Your task to perform on an android device: open a bookmark in the chrome app Image 0: 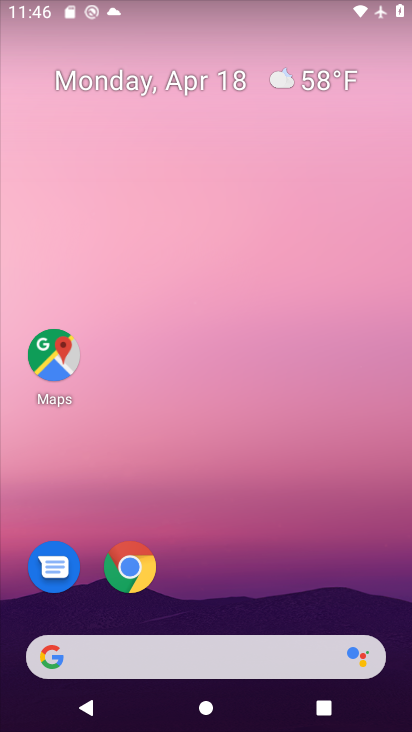
Step 0: click (122, 574)
Your task to perform on an android device: open a bookmark in the chrome app Image 1: 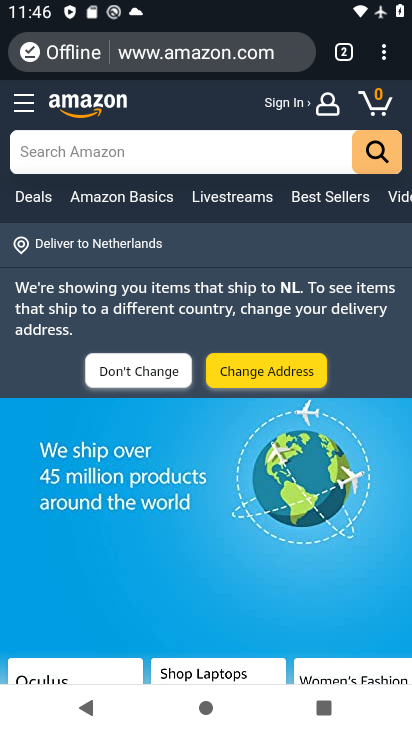
Step 1: click (382, 52)
Your task to perform on an android device: open a bookmark in the chrome app Image 2: 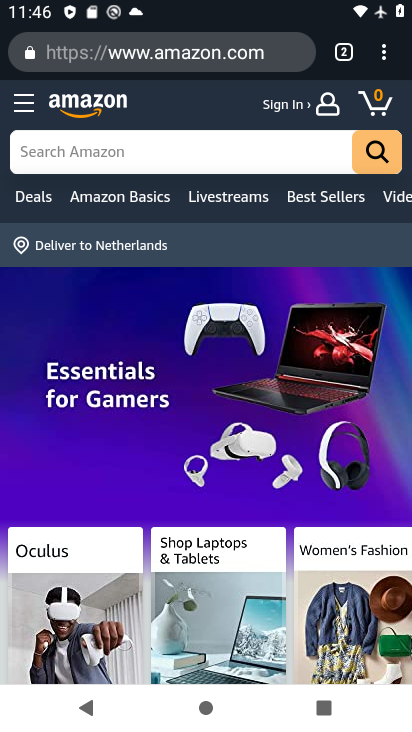
Step 2: click (380, 52)
Your task to perform on an android device: open a bookmark in the chrome app Image 3: 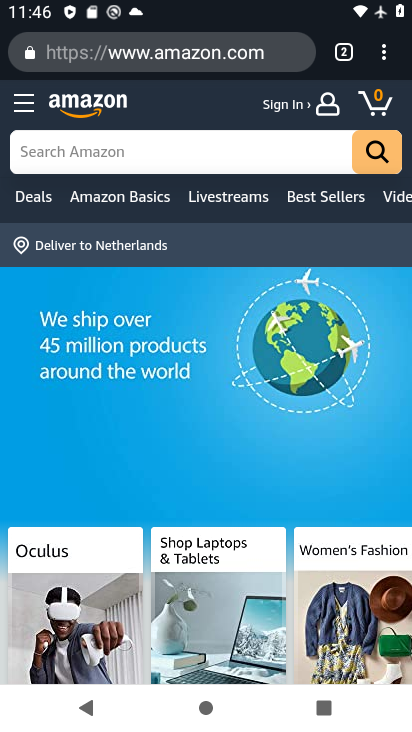
Step 3: click (386, 59)
Your task to perform on an android device: open a bookmark in the chrome app Image 4: 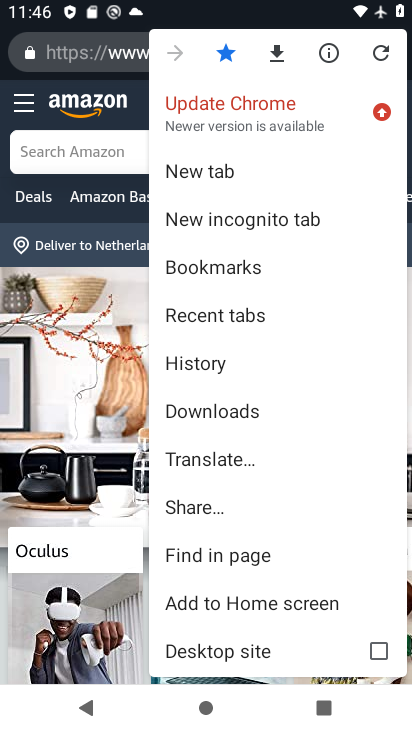
Step 4: click (218, 275)
Your task to perform on an android device: open a bookmark in the chrome app Image 5: 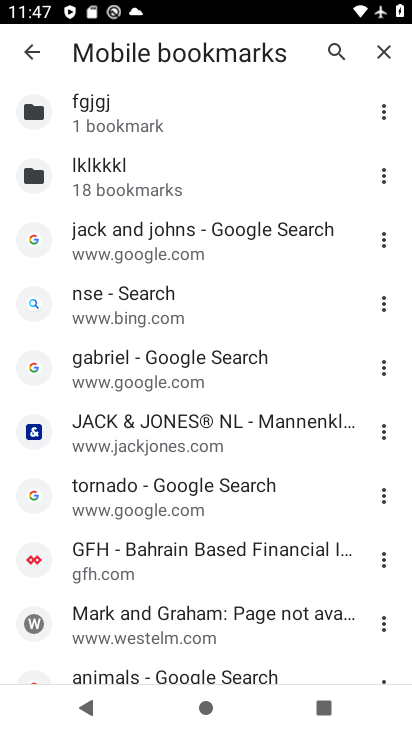
Step 5: drag from (145, 521) to (159, 480)
Your task to perform on an android device: open a bookmark in the chrome app Image 6: 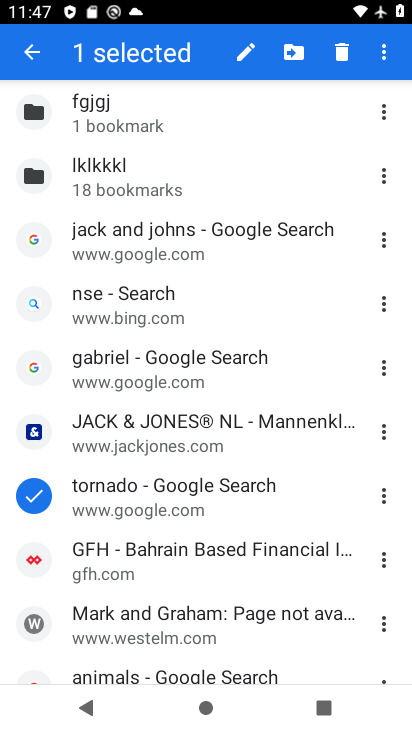
Step 6: click (102, 121)
Your task to perform on an android device: open a bookmark in the chrome app Image 7: 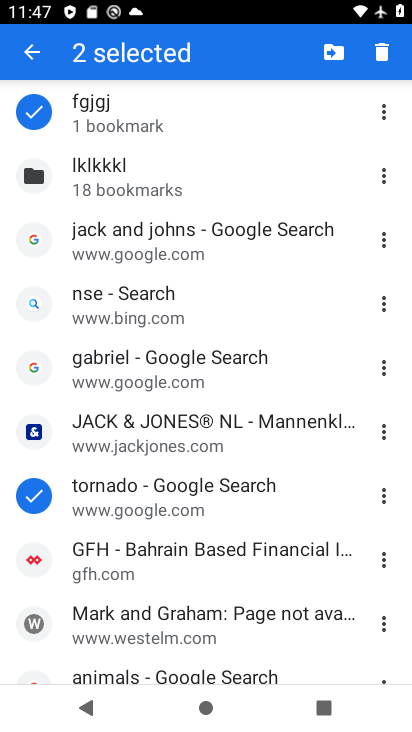
Step 7: press back button
Your task to perform on an android device: open a bookmark in the chrome app Image 8: 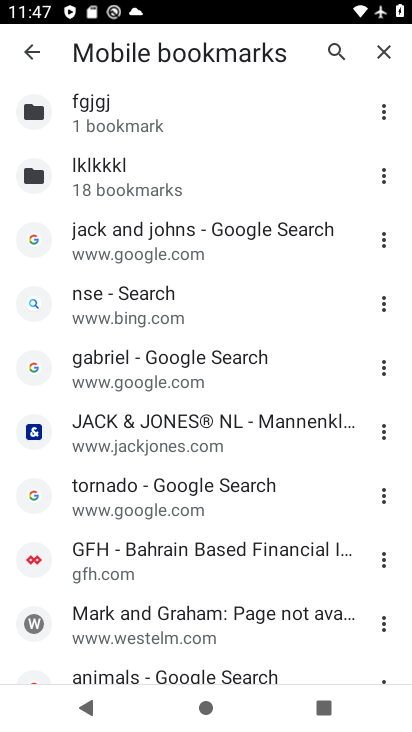
Step 8: click (102, 179)
Your task to perform on an android device: open a bookmark in the chrome app Image 9: 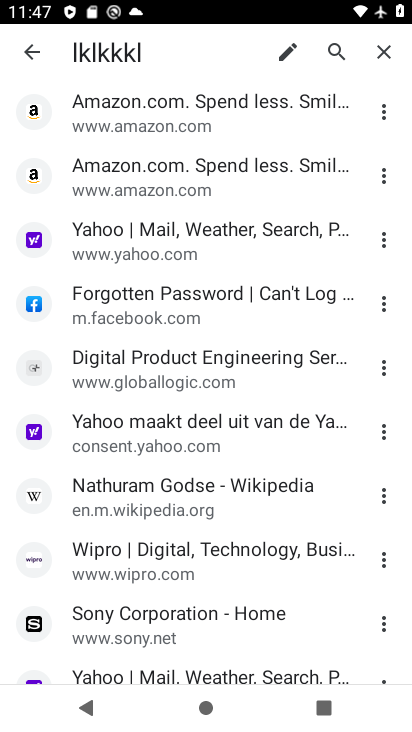
Step 9: task complete